Your task to perform on an android device: open chrome privacy settings Image 0: 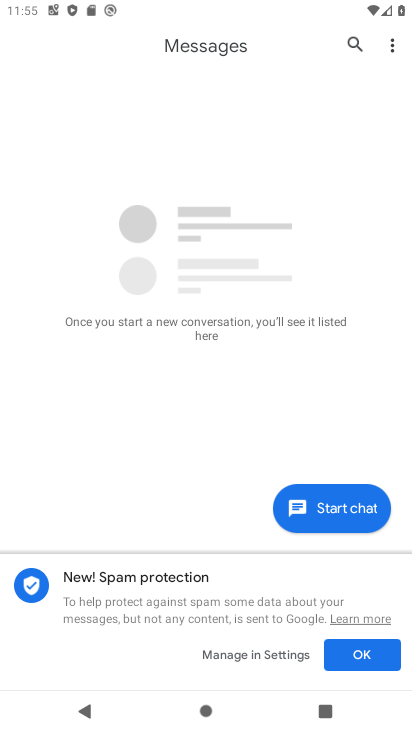
Step 0: drag from (173, 625) to (345, 625)
Your task to perform on an android device: open chrome privacy settings Image 1: 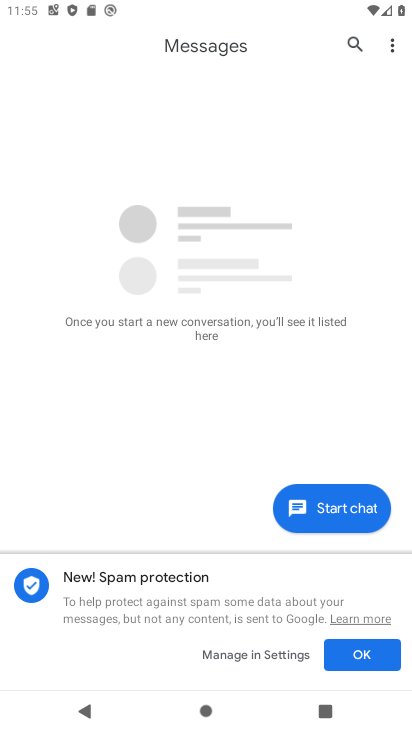
Step 1: press home button
Your task to perform on an android device: open chrome privacy settings Image 2: 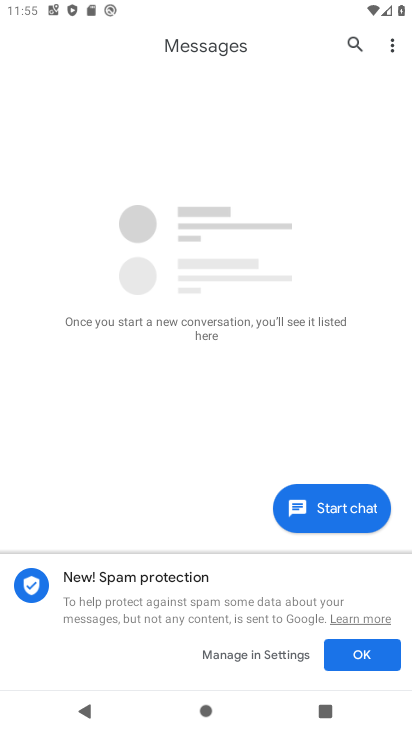
Step 2: drag from (345, 625) to (362, 656)
Your task to perform on an android device: open chrome privacy settings Image 3: 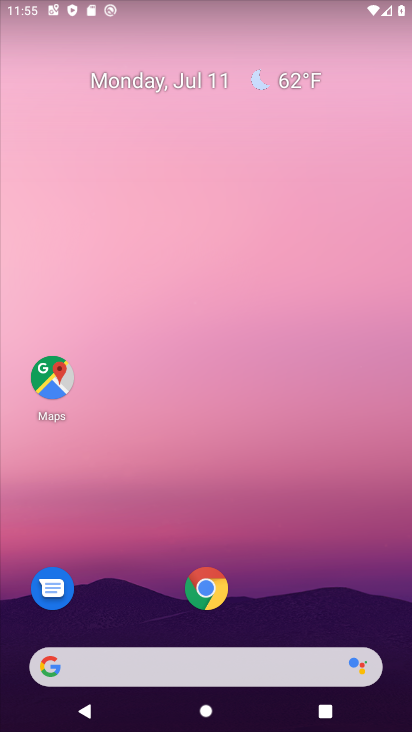
Step 3: click (149, 664)
Your task to perform on an android device: open chrome privacy settings Image 4: 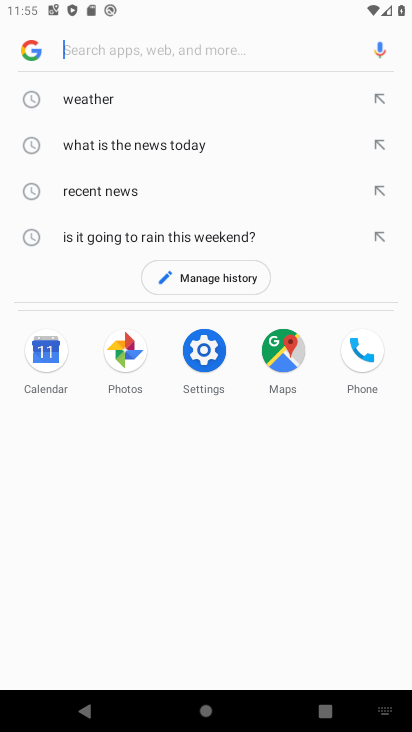
Step 4: type "news today"
Your task to perform on an android device: open chrome privacy settings Image 5: 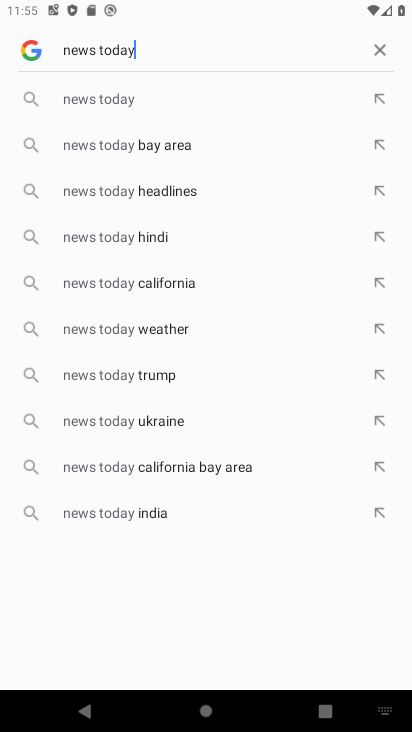
Step 5: click (97, 100)
Your task to perform on an android device: open chrome privacy settings Image 6: 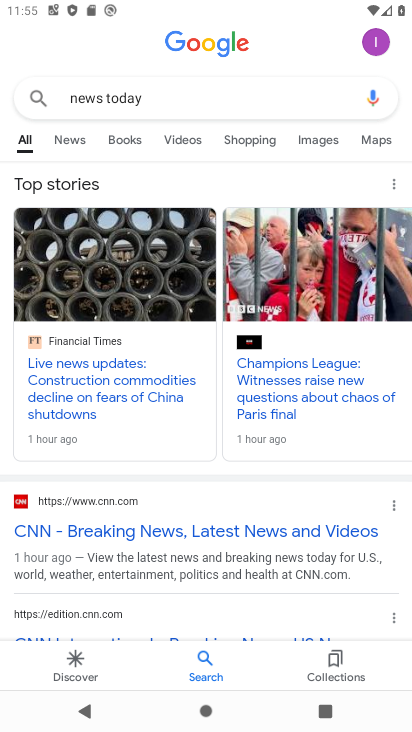
Step 6: task complete